Your task to perform on an android device: Open Reddit.com Image 0: 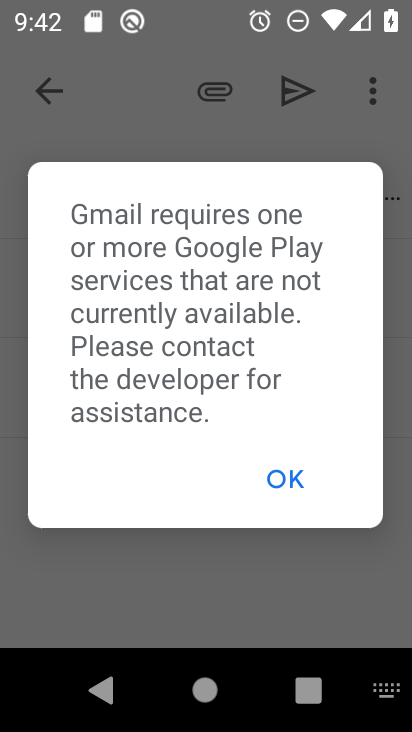
Step 0: click (299, 486)
Your task to perform on an android device: Open Reddit.com Image 1: 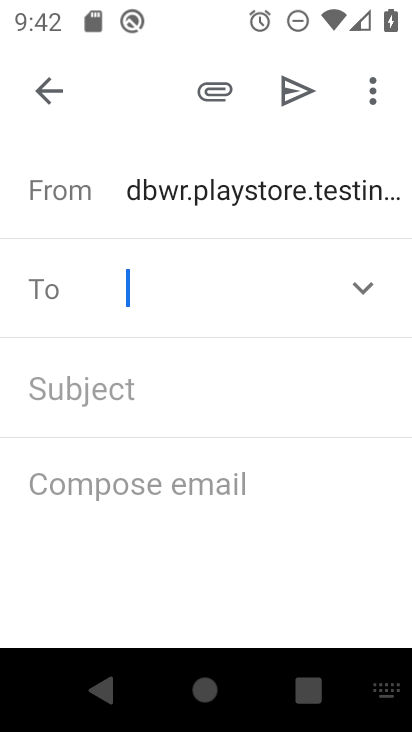
Step 1: press home button
Your task to perform on an android device: Open Reddit.com Image 2: 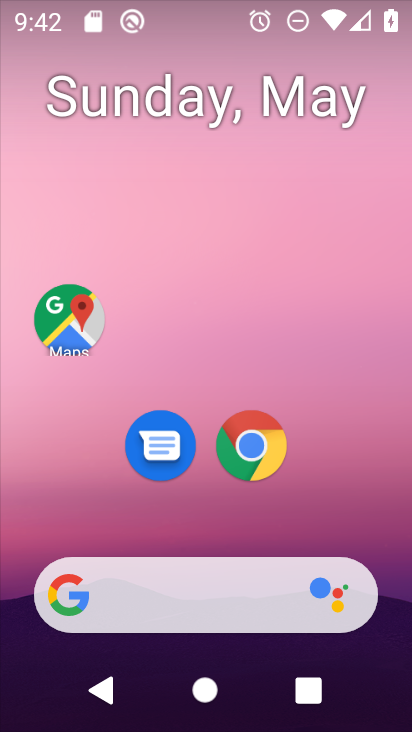
Step 2: click (252, 462)
Your task to perform on an android device: Open Reddit.com Image 3: 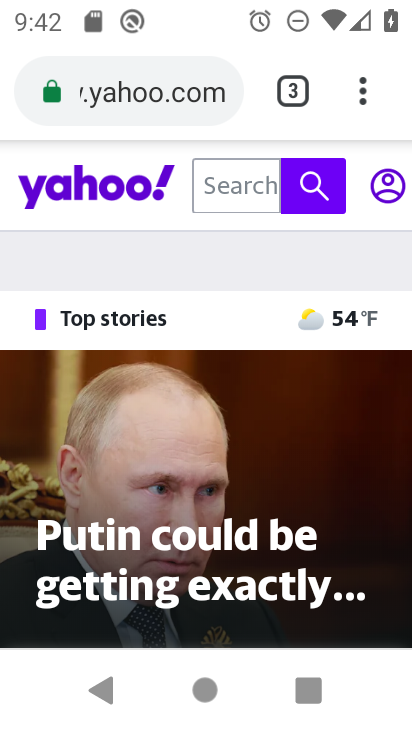
Step 3: click (229, 88)
Your task to perform on an android device: Open Reddit.com Image 4: 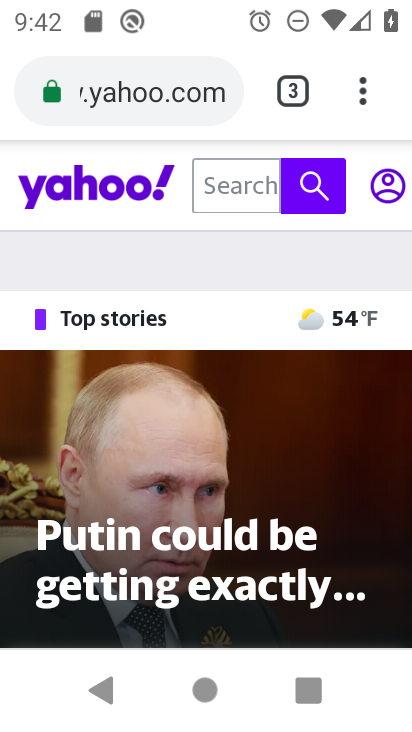
Step 4: click (171, 98)
Your task to perform on an android device: Open Reddit.com Image 5: 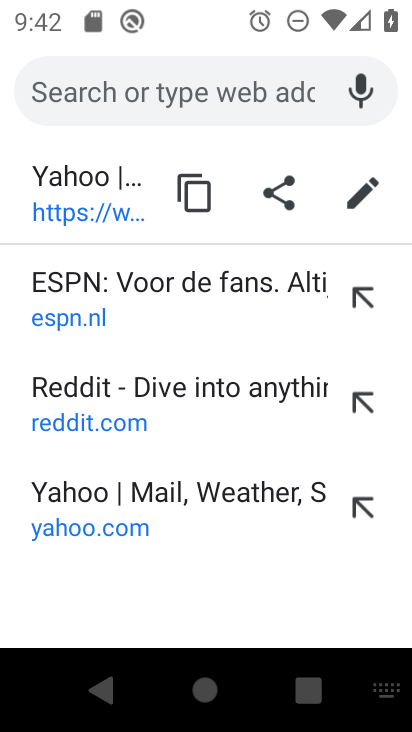
Step 5: click (119, 431)
Your task to perform on an android device: Open Reddit.com Image 6: 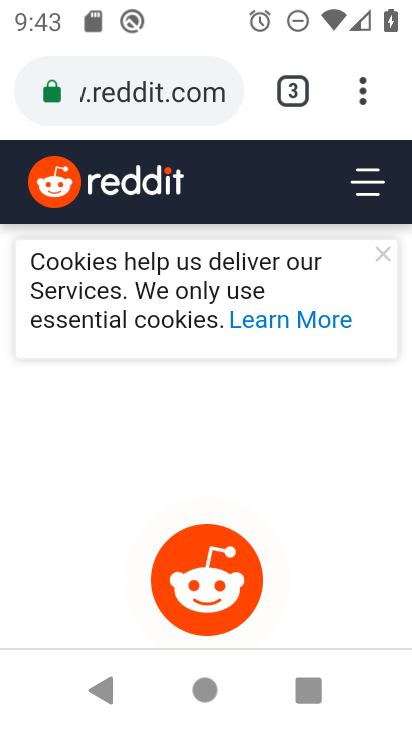
Step 6: task complete